Your task to perform on an android device: Go to network settings Image 0: 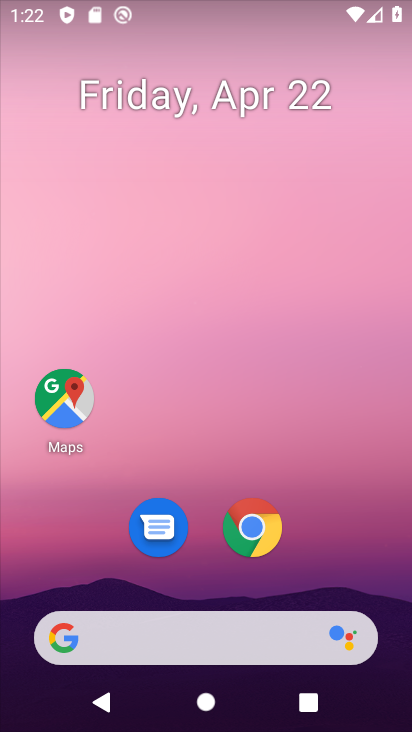
Step 0: drag from (208, 594) to (377, 563)
Your task to perform on an android device: Go to network settings Image 1: 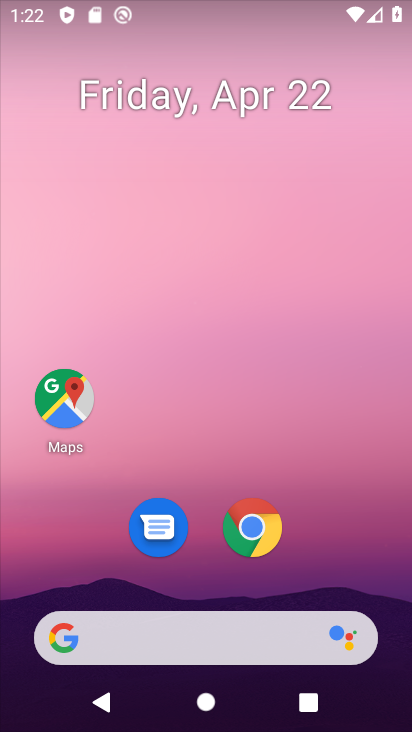
Step 1: drag from (222, 521) to (364, 31)
Your task to perform on an android device: Go to network settings Image 2: 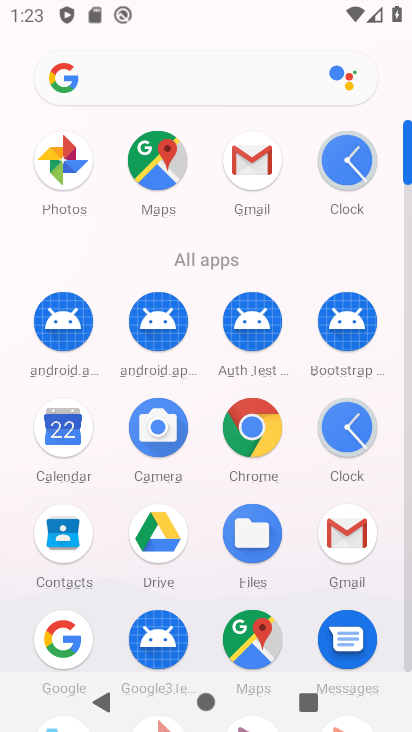
Step 2: drag from (209, 581) to (238, 117)
Your task to perform on an android device: Go to network settings Image 3: 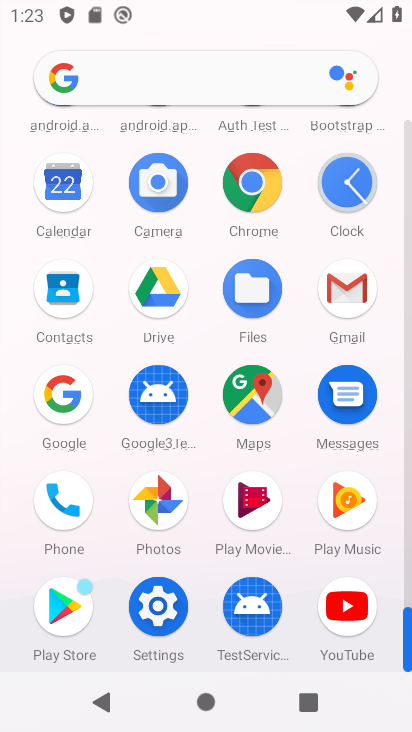
Step 3: click (166, 607)
Your task to perform on an android device: Go to network settings Image 4: 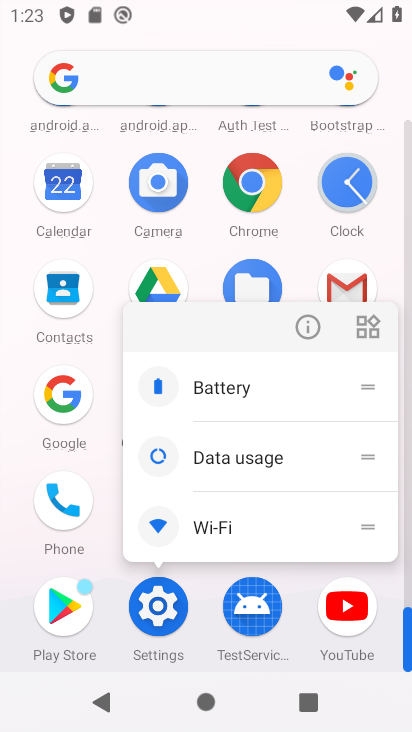
Step 4: click (302, 326)
Your task to perform on an android device: Go to network settings Image 5: 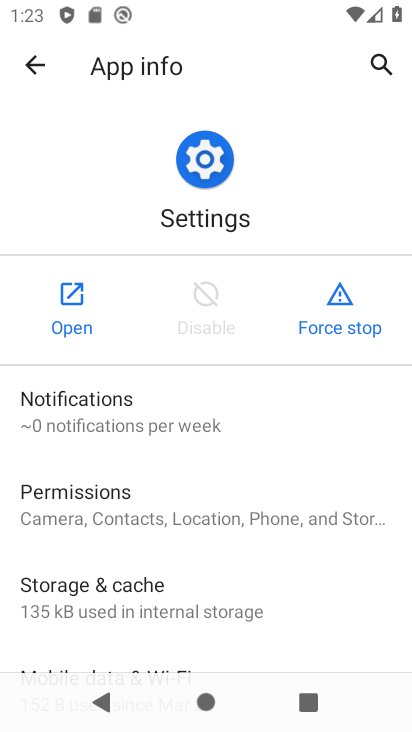
Step 5: click (65, 304)
Your task to perform on an android device: Go to network settings Image 6: 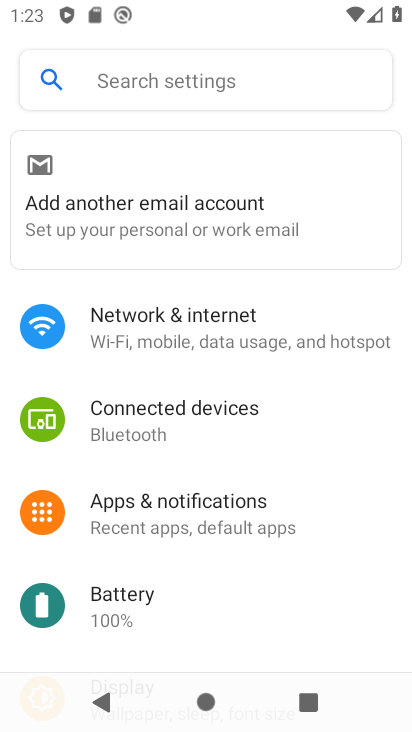
Step 6: drag from (245, 578) to (277, 268)
Your task to perform on an android device: Go to network settings Image 7: 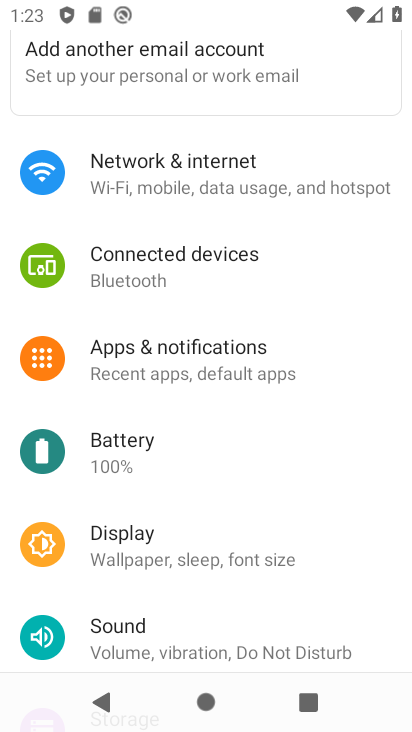
Step 7: click (153, 200)
Your task to perform on an android device: Go to network settings Image 8: 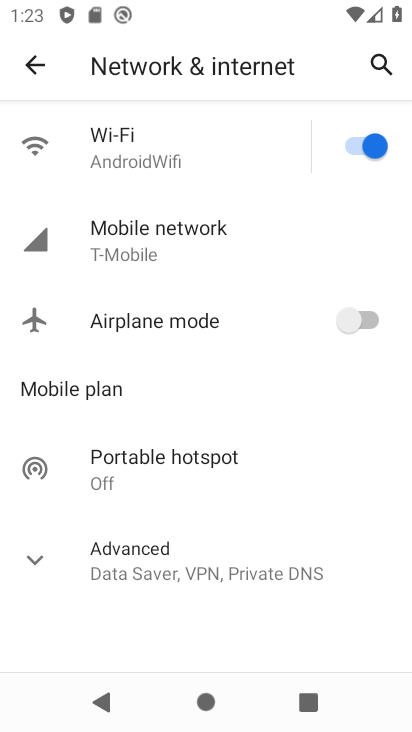
Step 8: click (203, 233)
Your task to perform on an android device: Go to network settings Image 9: 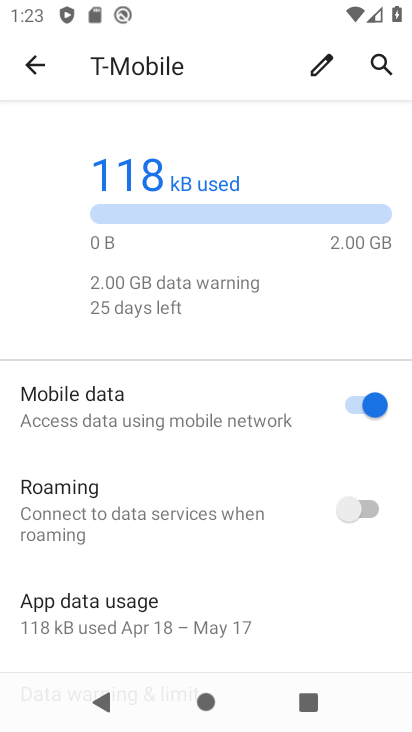
Step 9: task complete